Your task to perform on an android device: check google app version Image 0: 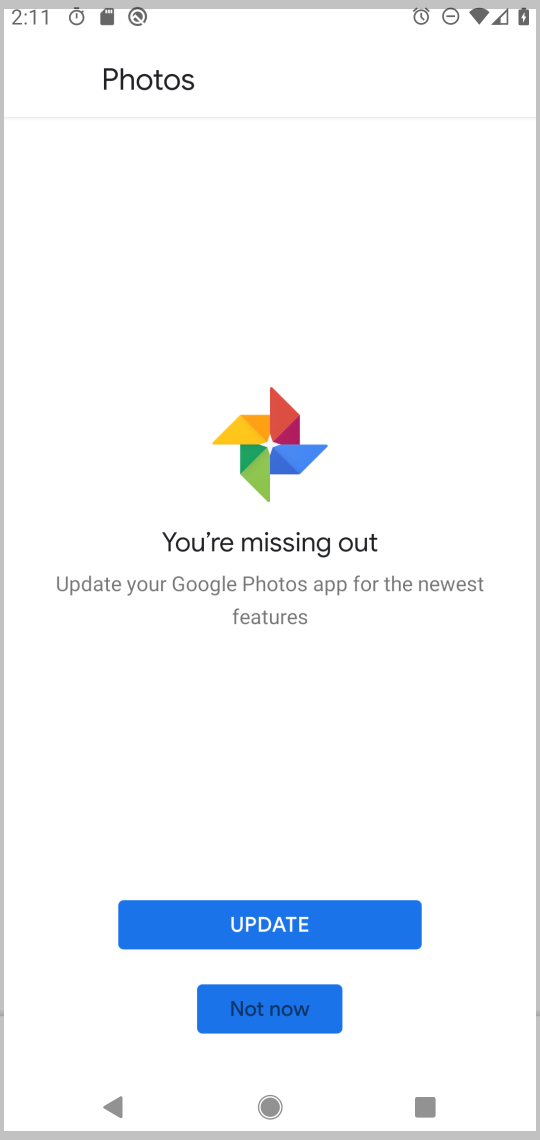
Step 0: press home button
Your task to perform on an android device: check google app version Image 1: 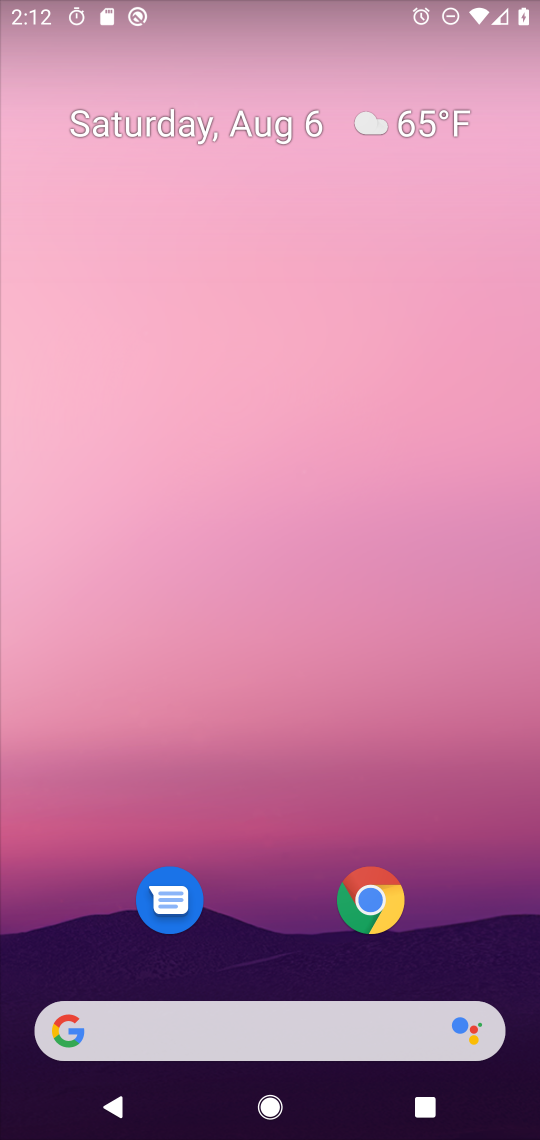
Step 1: drag from (291, 681) to (320, 67)
Your task to perform on an android device: check google app version Image 2: 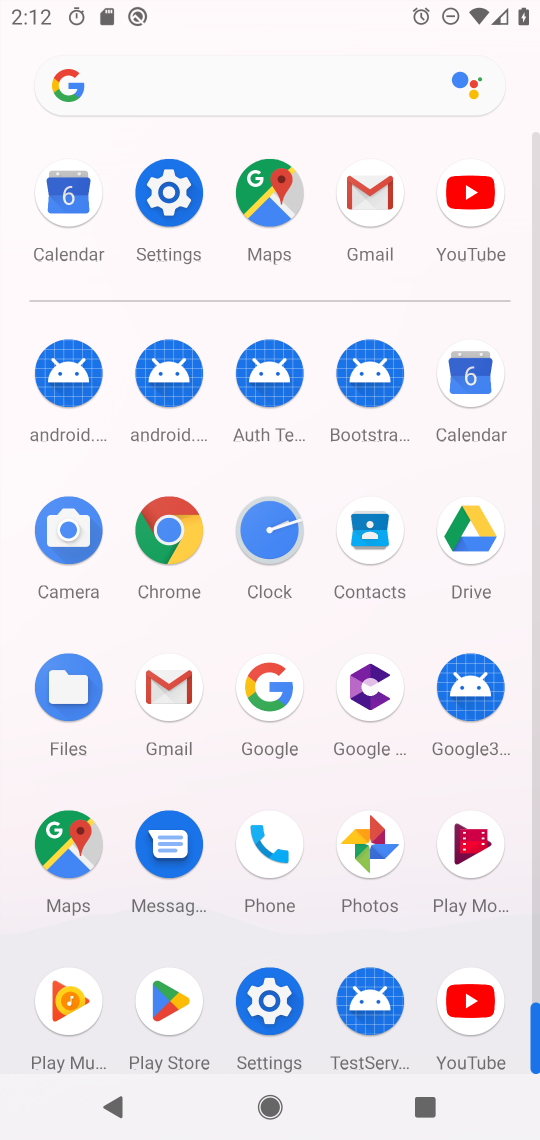
Step 2: click (265, 690)
Your task to perform on an android device: check google app version Image 3: 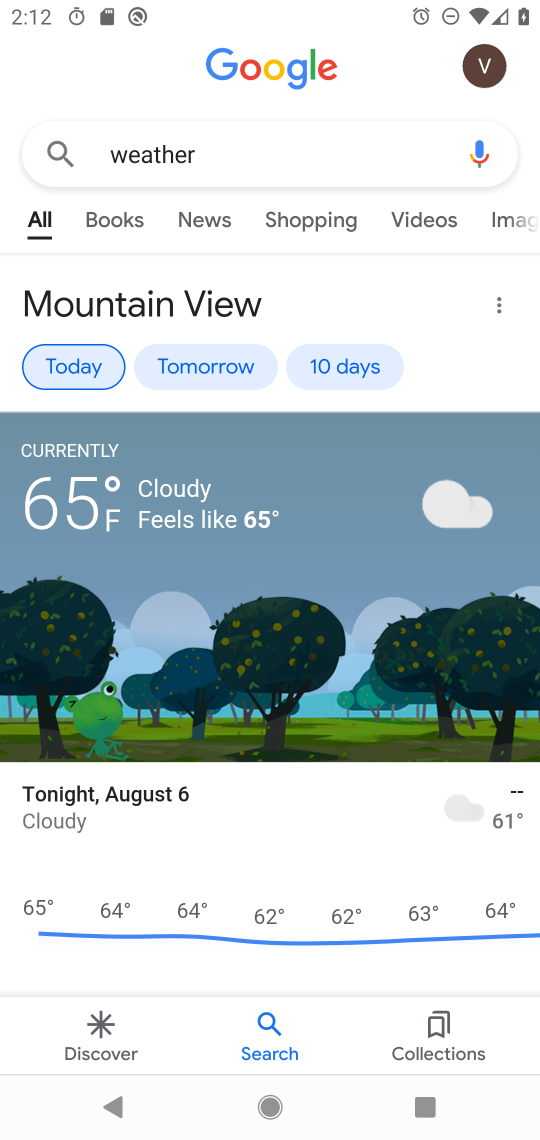
Step 3: click (488, 69)
Your task to perform on an android device: check google app version Image 4: 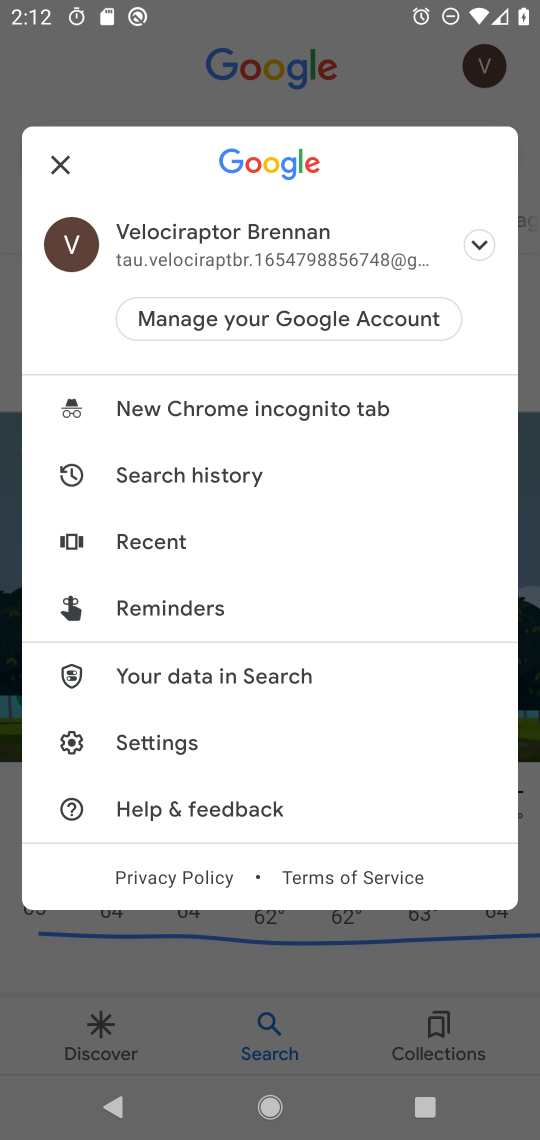
Step 4: click (116, 746)
Your task to perform on an android device: check google app version Image 5: 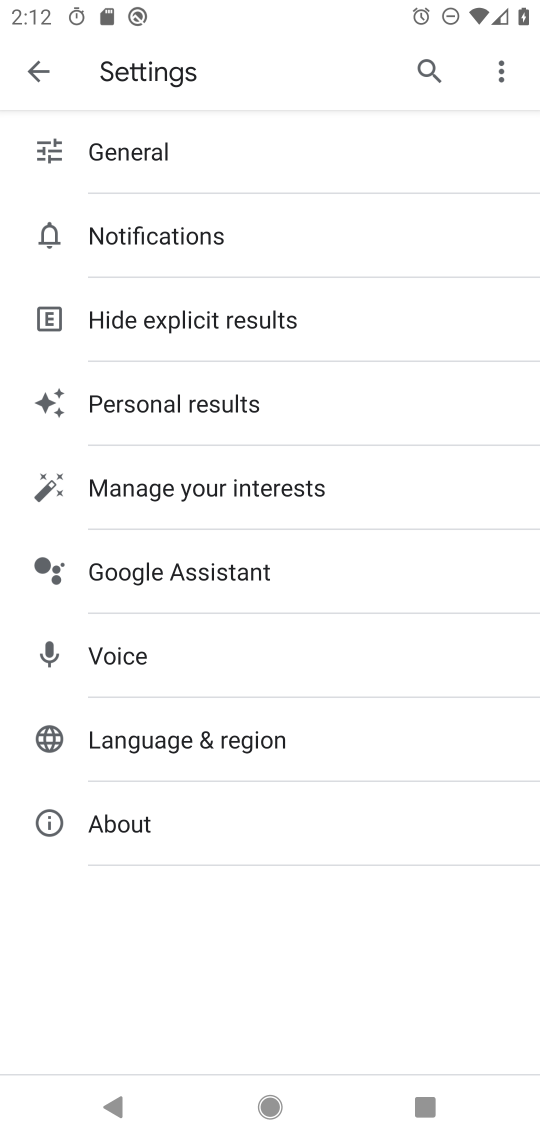
Step 5: click (118, 815)
Your task to perform on an android device: check google app version Image 6: 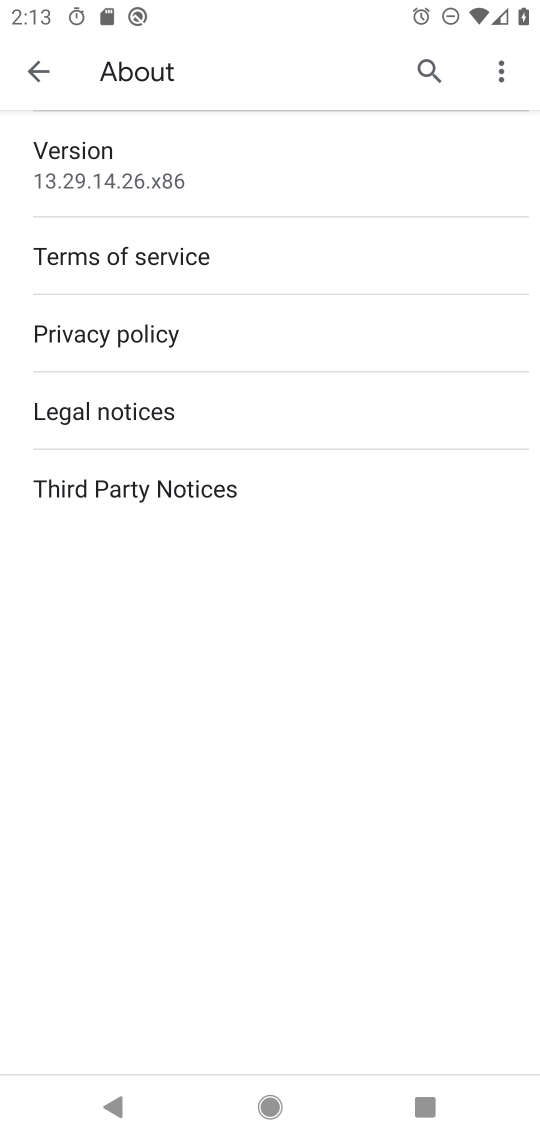
Step 6: task complete